Your task to perform on an android device: Go to Yahoo.com Image 0: 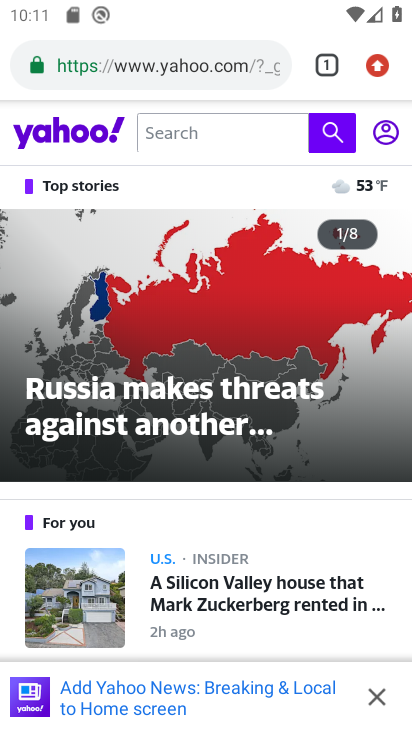
Step 0: press home button
Your task to perform on an android device: Go to Yahoo.com Image 1: 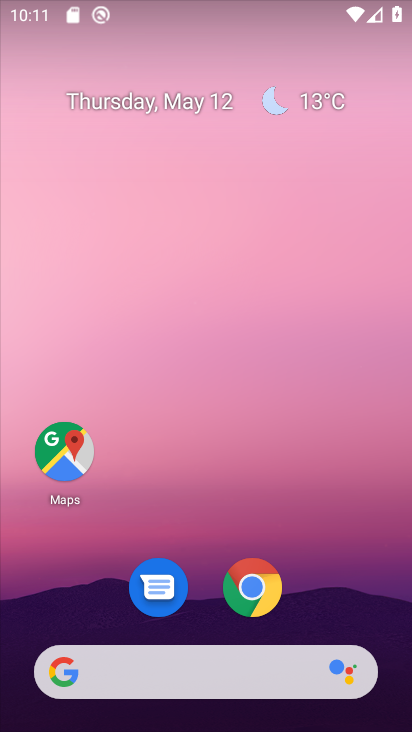
Step 1: click (179, 665)
Your task to perform on an android device: Go to Yahoo.com Image 2: 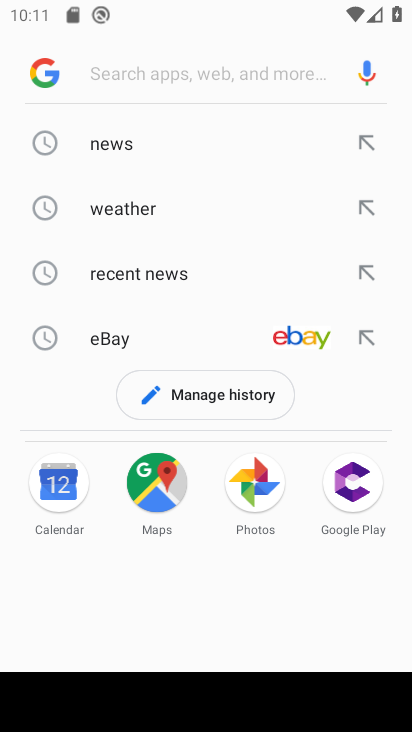
Step 2: type "yahoo"
Your task to perform on an android device: Go to Yahoo.com Image 3: 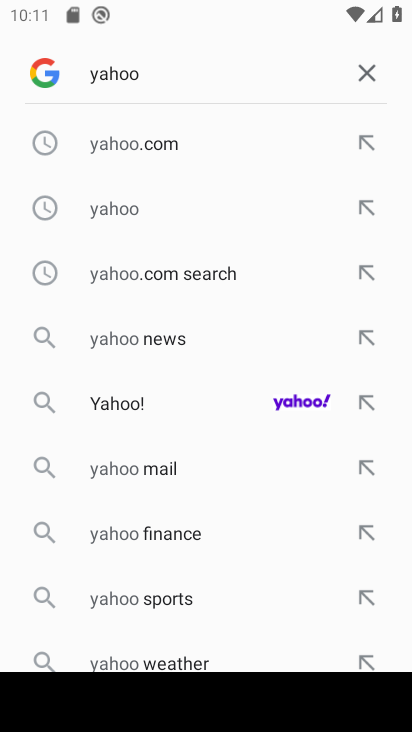
Step 3: click (187, 144)
Your task to perform on an android device: Go to Yahoo.com Image 4: 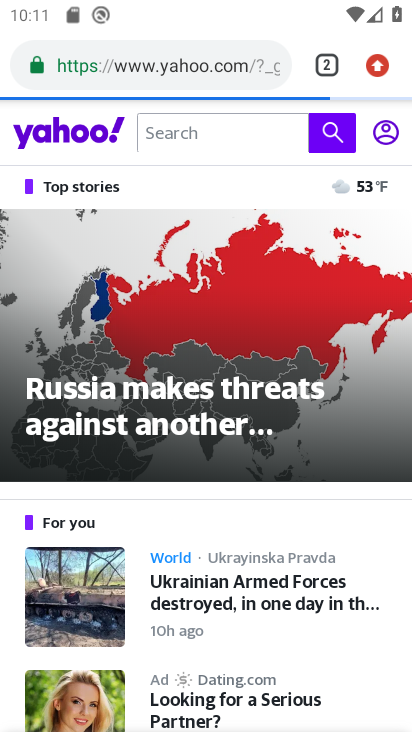
Step 4: task complete